Your task to perform on an android device: Open the calendar app, open the side menu, and click the "Day" option Image 0: 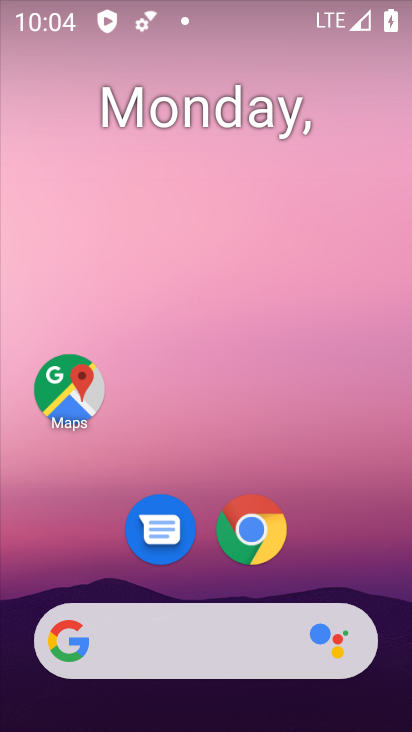
Step 0: press home button
Your task to perform on an android device: Open the calendar app, open the side menu, and click the "Day" option Image 1: 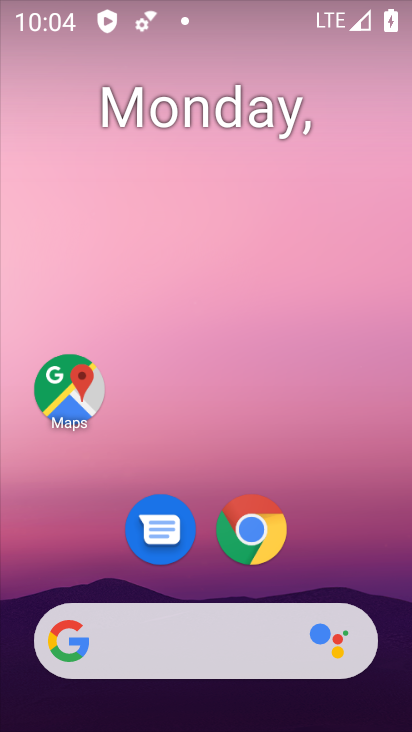
Step 1: drag from (20, 616) to (269, 103)
Your task to perform on an android device: Open the calendar app, open the side menu, and click the "Day" option Image 2: 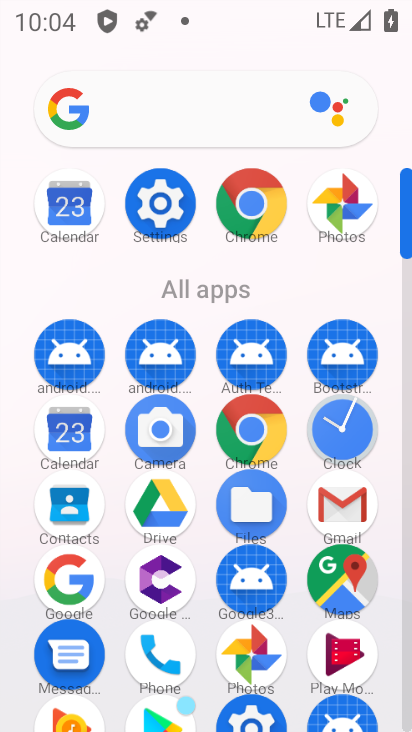
Step 2: click (59, 432)
Your task to perform on an android device: Open the calendar app, open the side menu, and click the "Day" option Image 3: 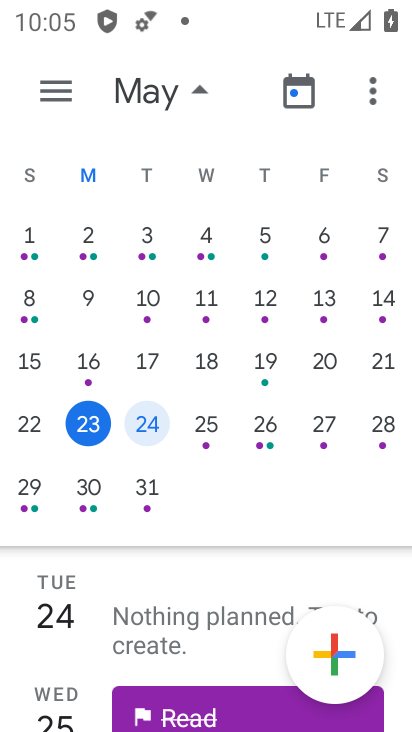
Step 3: click (52, 78)
Your task to perform on an android device: Open the calendar app, open the side menu, and click the "Day" option Image 4: 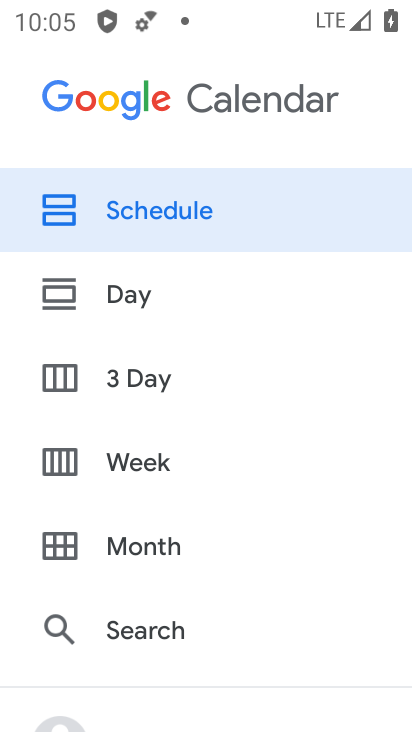
Step 4: click (65, 291)
Your task to perform on an android device: Open the calendar app, open the side menu, and click the "Day" option Image 5: 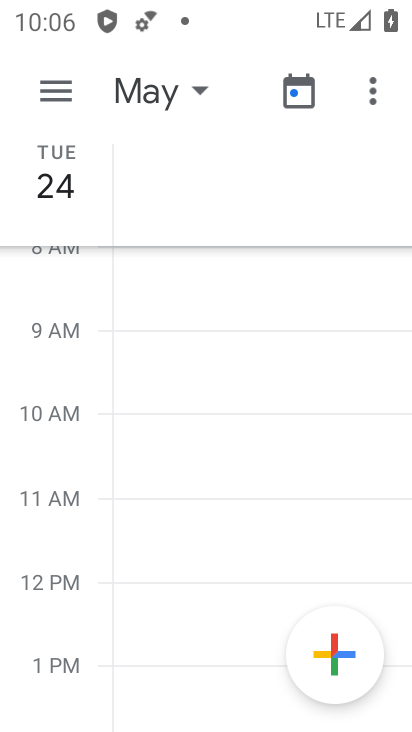
Step 5: click (59, 90)
Your task to perform on an android device: Open the calendar app, open the side menu, and click the "Day" option Image 6: 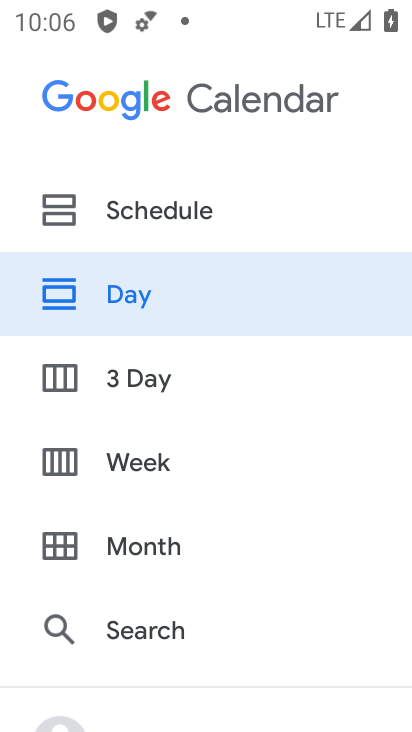
Step 6: click (103, 255)
Your task to perform on an android device: Open the calendar app, open the side menu, and click the "Day" option Image 7: 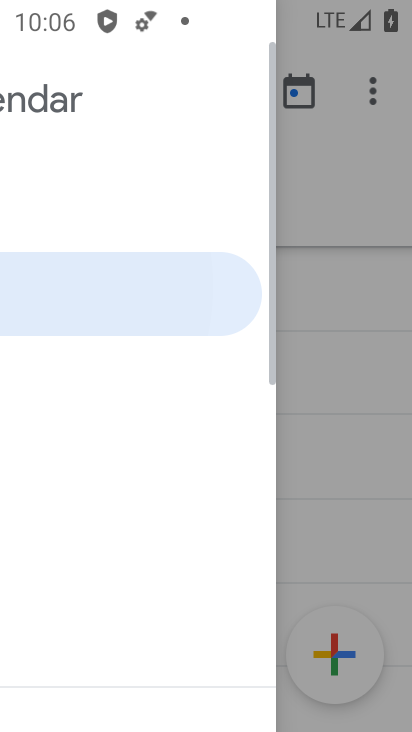
Step 7: click (110, 280)
Your task to perform on an android device: Open the calendar app, open the side menu, and click the "Day" option Image 8: 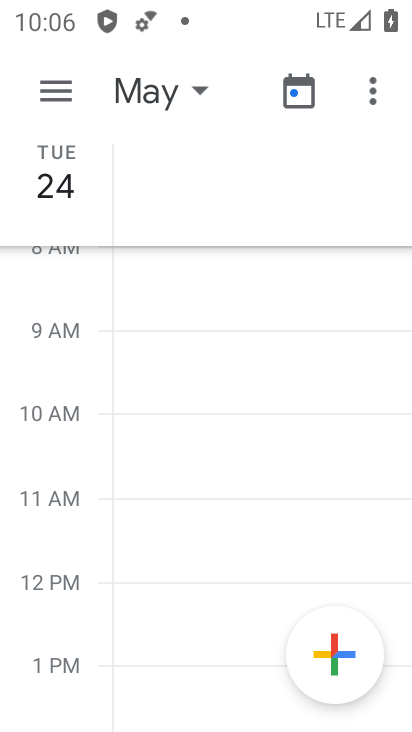
Step 8: task complete